Your task to perform on an android device: see tabs open on other devices in the chrome app Image 0: 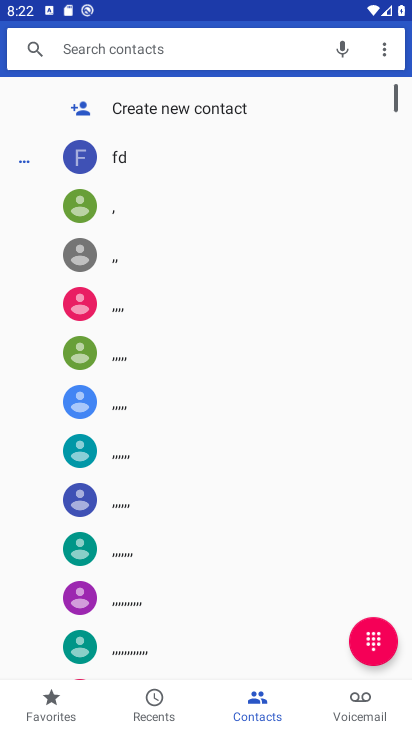
Step 0: press home button
Your task to perform on an android device: see tabs open on other devices in the chrome app Image 1: 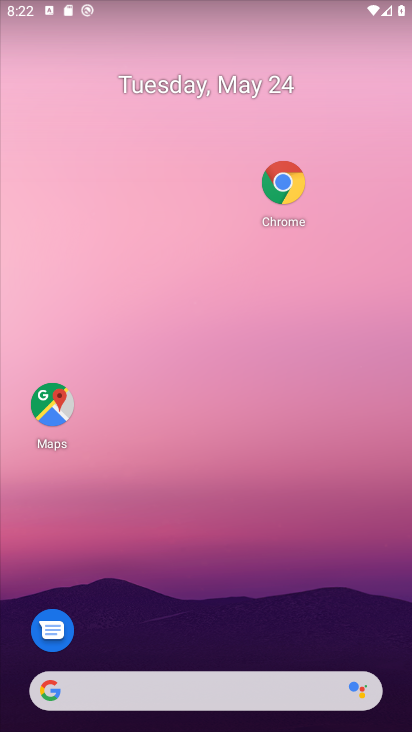
Step 1: drag from (220, 592) to (209, 202)
Your task to perform on an android device: see tabs open on other devices in the chrome app Image 2: 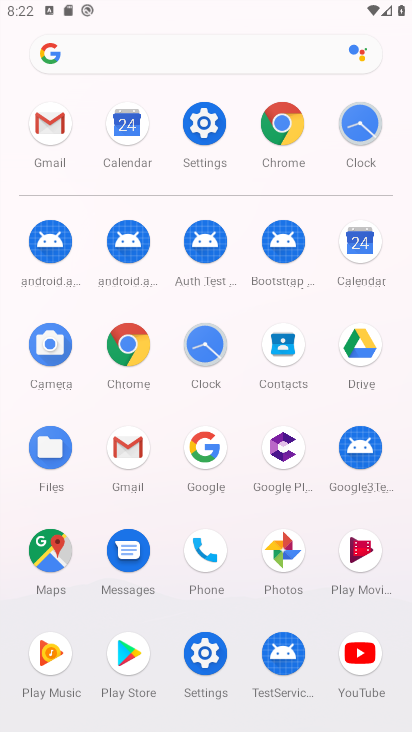
Step 2: click (294, 137)
Your task to perform on an android device: see tabs open on other devices in the chrome app Image 3: 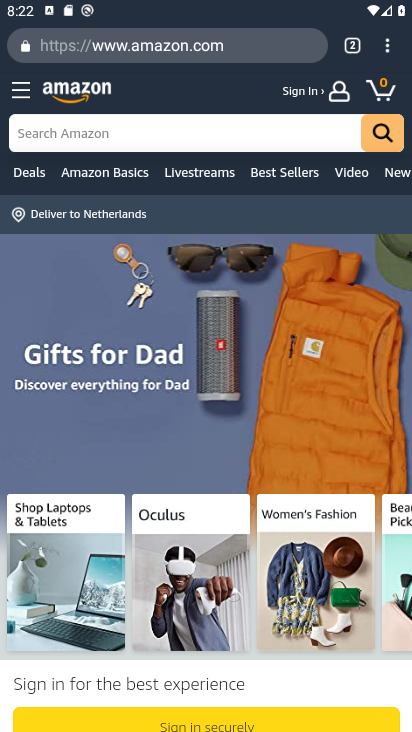
Step 3: click (390, 47)
Your task to perform on an android device: see tabs open on other devices in the chrome app Image 4: 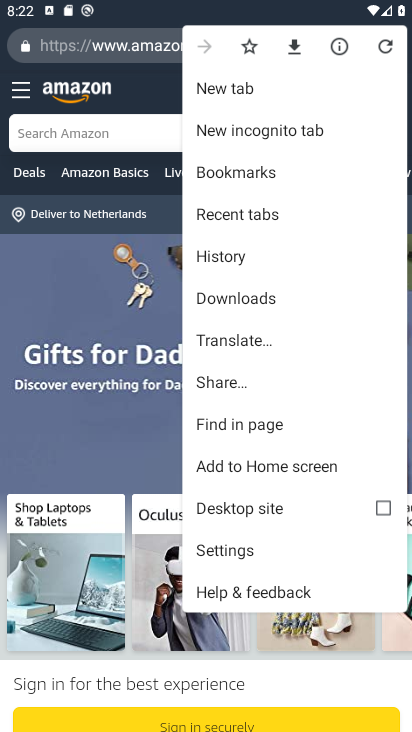
Step 4: click (156, 117)
Your task to perform on an android device: see tabs open on other devices in the chrome app Image 5: 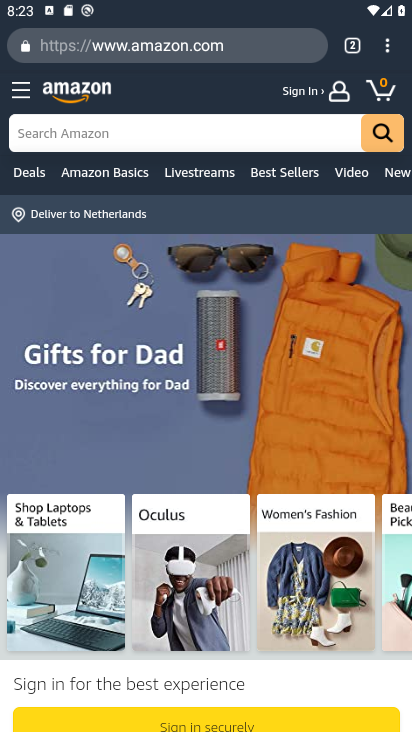
Step 5: click (357, 43)
Your task to perform on an android device: see tabs open on other devices in the chrome app Image 6: 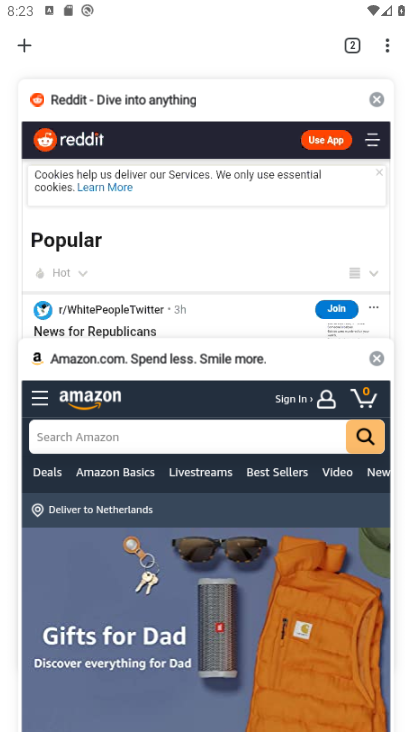
Step 6: click (28, 47)
Your task to perform on an android device: see tabs open on other devices in the chrome app Image 7: 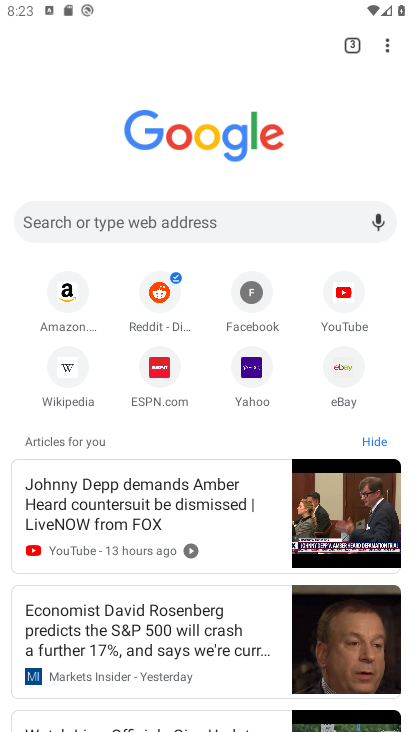
Step 7: task complete